Your task to perform on an android device: read, delete, or share a saved page in the chrome app Image 0: 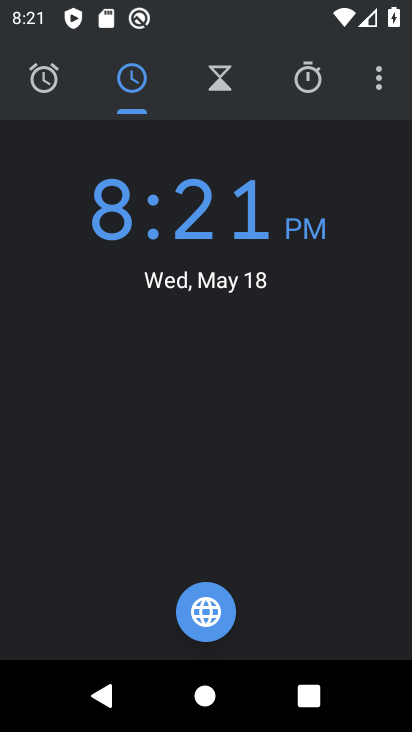
Step 0: press home button
Your task to perform on an android device: read, delete, or share a saved page in the chrome app Image 1: 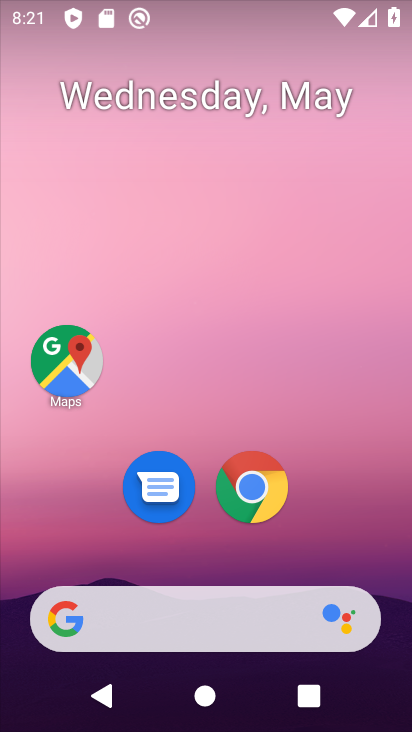
Step 1: click (254, 487)
Your task to perform on an android device: read, delete, or share a saved page in the chrome app Image 2: 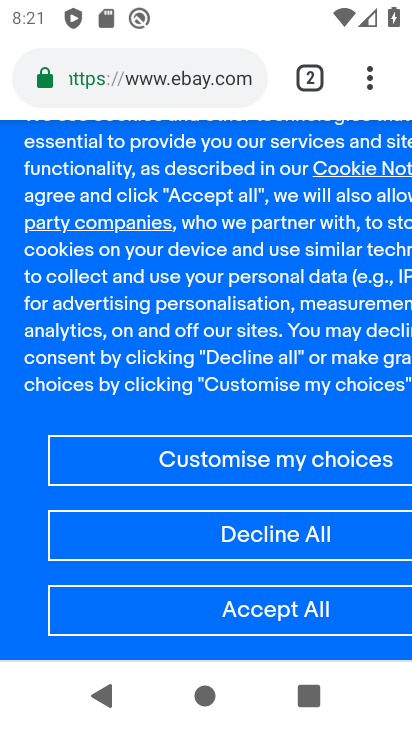
Step 2: click (369, 73)
Your task to perform on an android device: read, delete, or share a saved page in the chrome app Image 3: 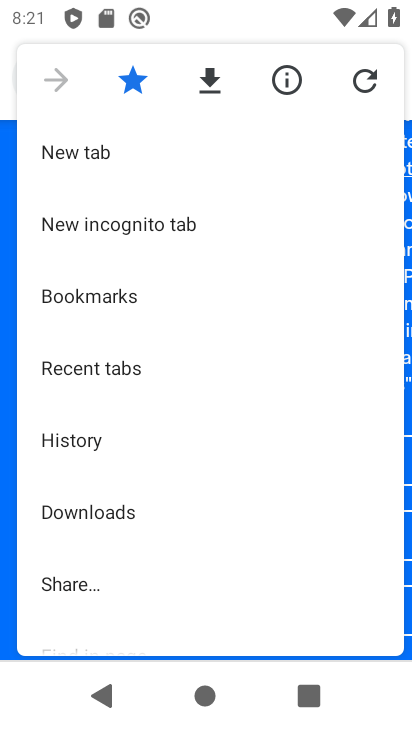
Step 3: drag from (218, 422) to (156, 244)
Your task to perform on an android device: read, delete, or share a saved page in the chrome app Image 4: 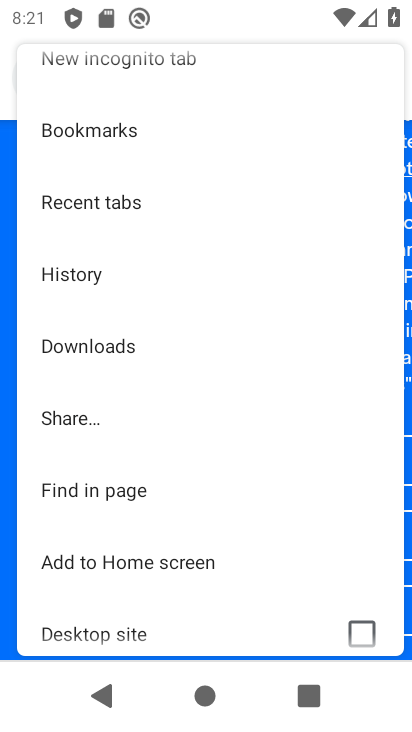
Step 4: click (83, 345)
Your task to perform on an android device: read, delete, or share a saved page in the chrome app Image 5: 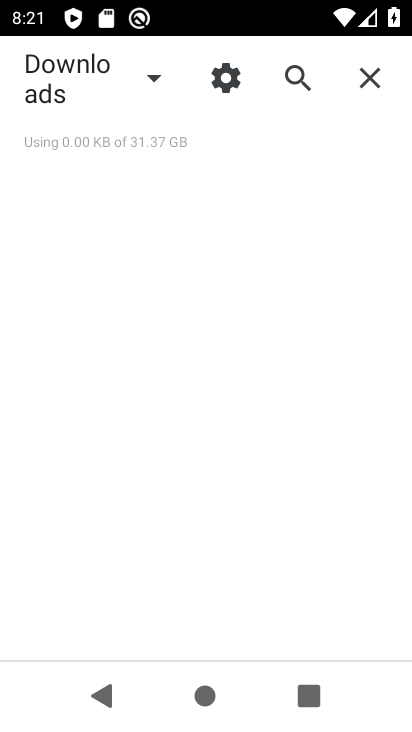
Step 5: task complete